Your task to perform on an android device: Check the weather Image 0: 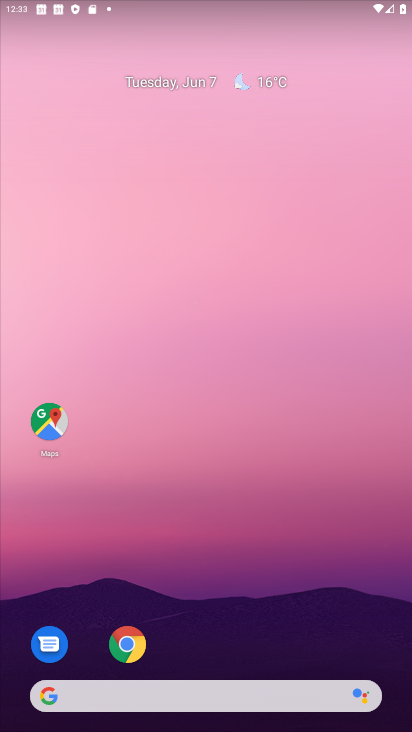
Step 0: drag from (189, 667) to (12, 279)
Your task to perform on an android device: Check the weather Image 1: 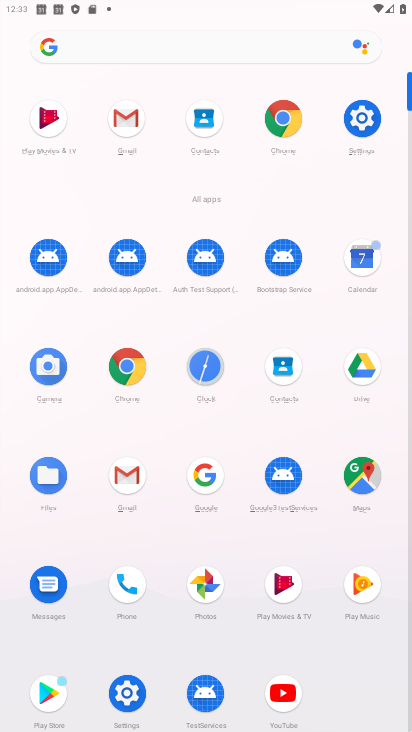
Step 1: click (108, 364)
Your task to perform on an android device: Check the weather Image 2: 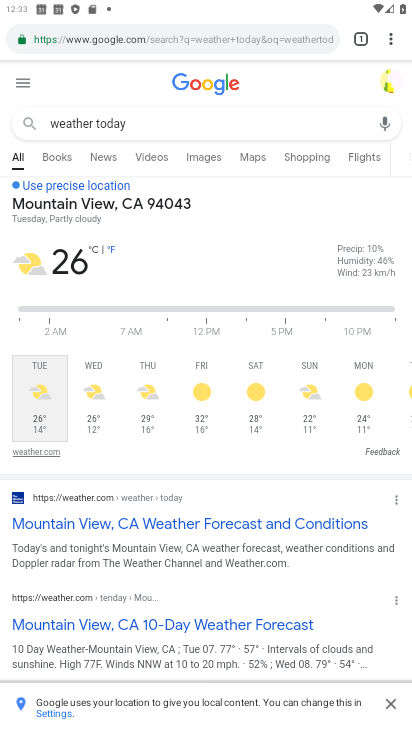
Step 2: click (150, 130)
Your task to perform on an android device: Check the weather Image 3: 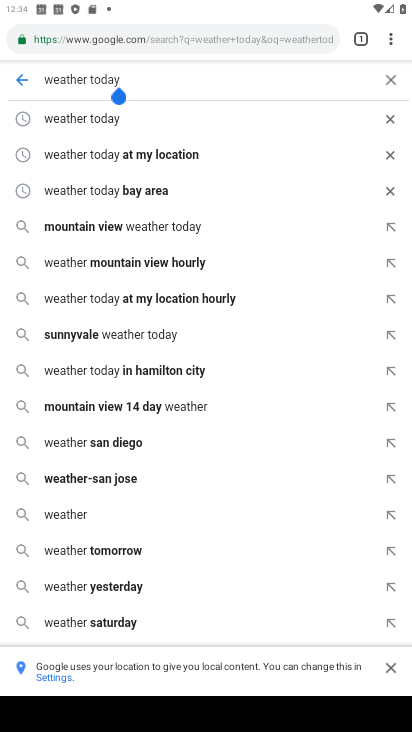
Step 3: click (94, 133)
Your task to perform on an android device: Check the weather Image 4: 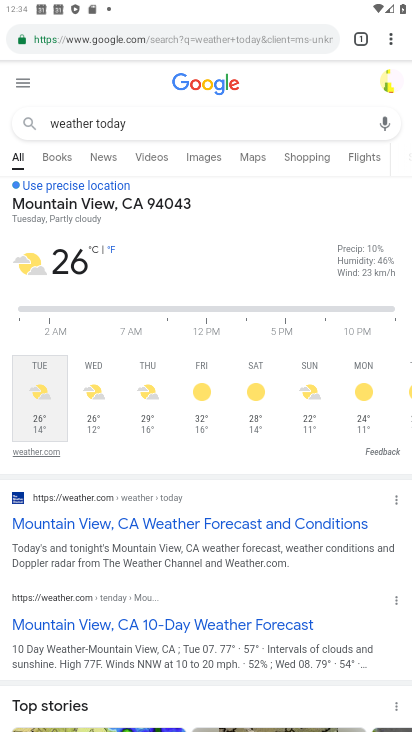
Step 4: task complete